Your task to perform on an android device: turn off location Image 0: 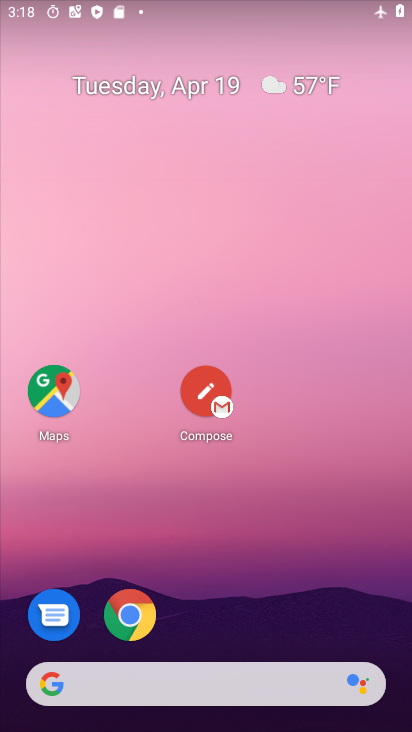
Step 0: click (296, 59)
Your task to perform on an android device: turn off location Image 1: 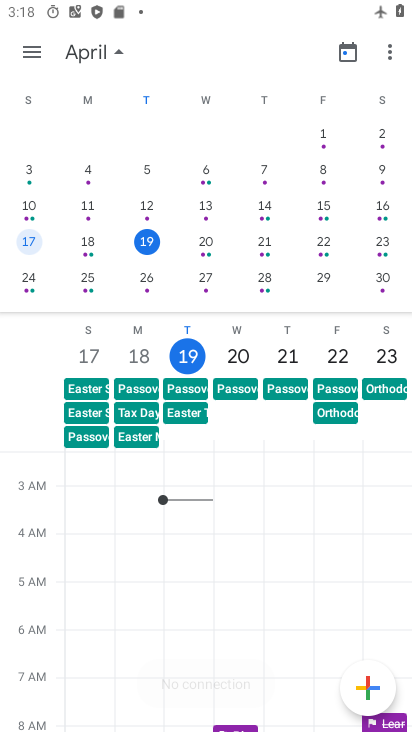
Step 1: drag from (269, 7) to (257, 585)
Your task to perform on an android device: turn off location Image 2: 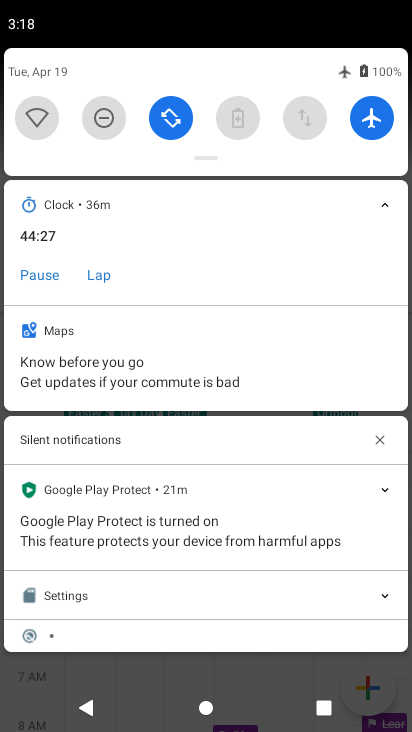
Step 2: drag from (227, 710) to (290, 177)
Your task to perform on an android device: turn off location Image 3: 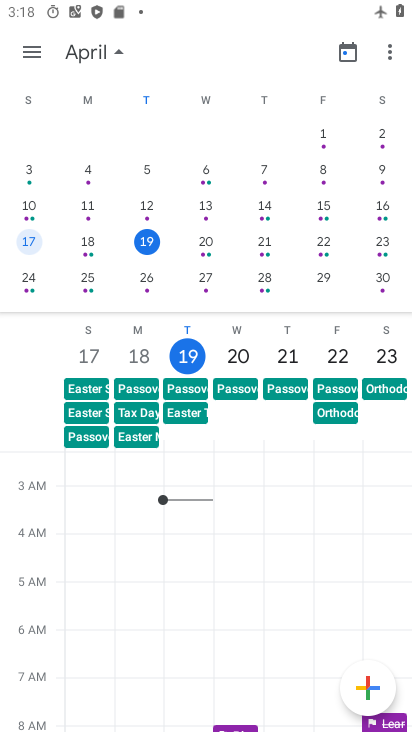
Step 3: press home button
Your task to perform on an android device: turn off location Image 4: 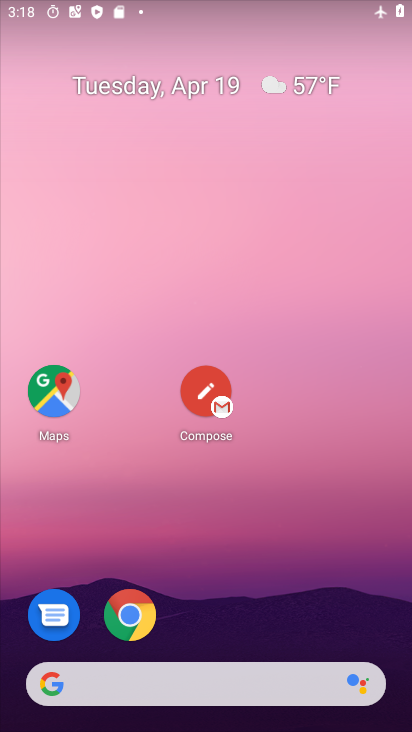
Step 4: drag from (220, 674) to (287, 130)
Your task to perform on an android device: turn off location Image 5: 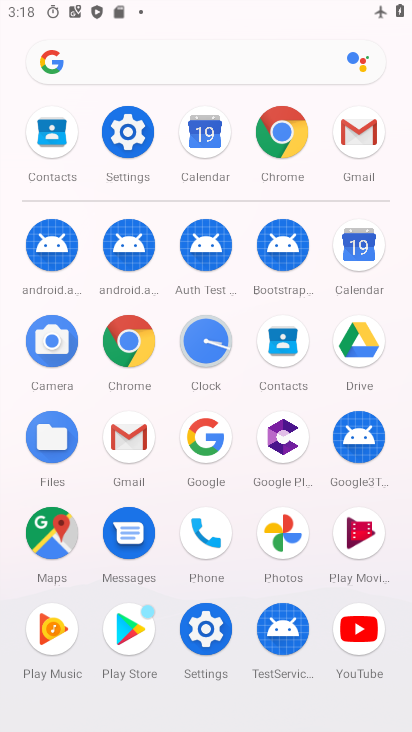
Step 5: click (135, 140)
Your task to perform on an android device: turn off location Image 6: 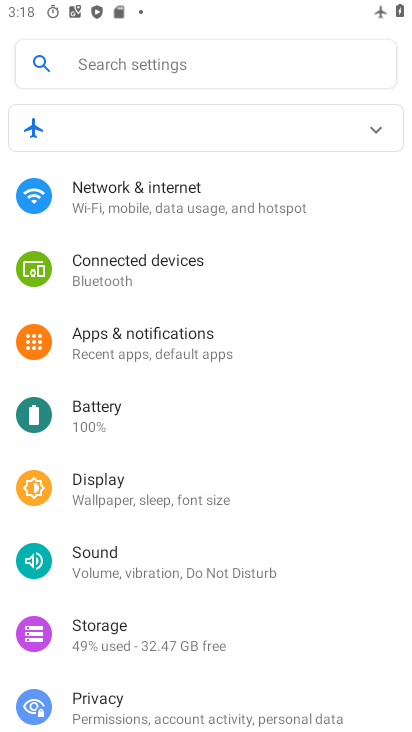
Step 6: drag from (181, 664) to (198, 152)
Your task to perform on an android device: turn off location Image 7: 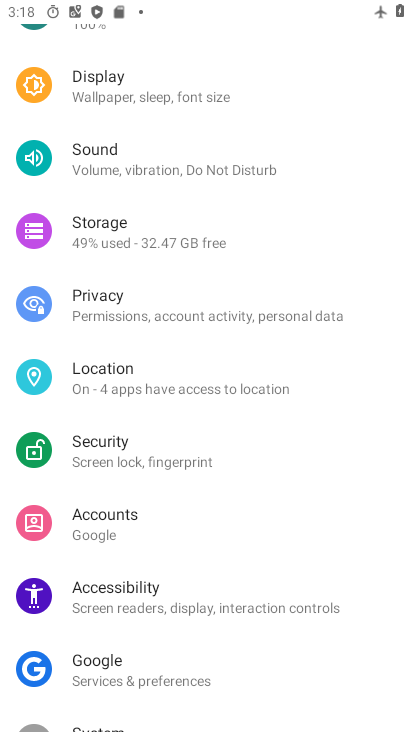
Step 7: click (154, 378)
Your task to perform on an android device: turn off location Image 8: 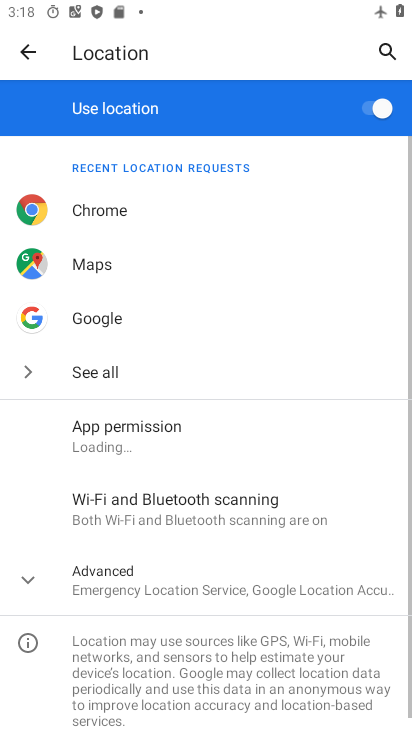
Step 8: click (367, 113)
Your task to perform on an android device: turn off location Image 9: 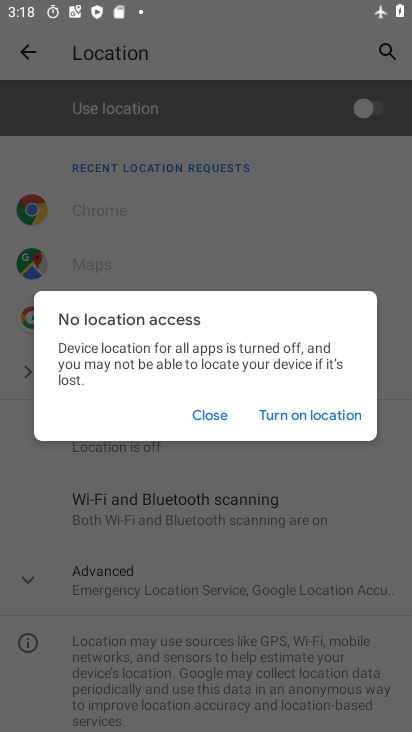
Step 9: click (210, 414)
Your task to perform on an android device: turn off location Image 10: 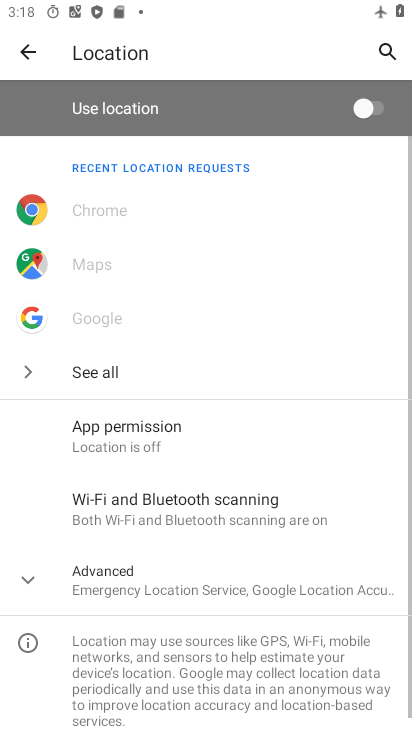
Step 10: task complete